Your task to perform on an android device: see tabs open on other devices in the chrome app Image 0: 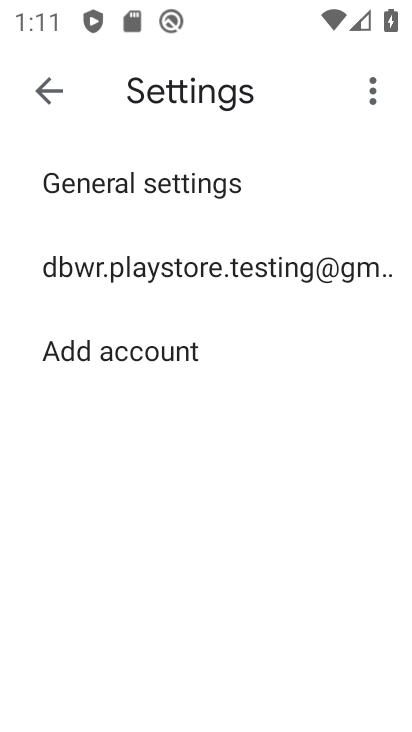
Step 0: press back button
Your task to perform on an android device: see tabs open on other devices in the chrome app Image 1: 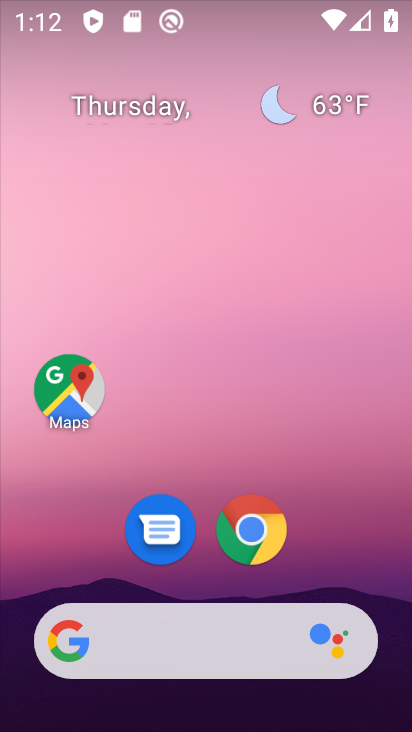
Step 1: click (252, 528)
Your task to perform on an android device: see tabs open on other devices in the chrome app Image 2: 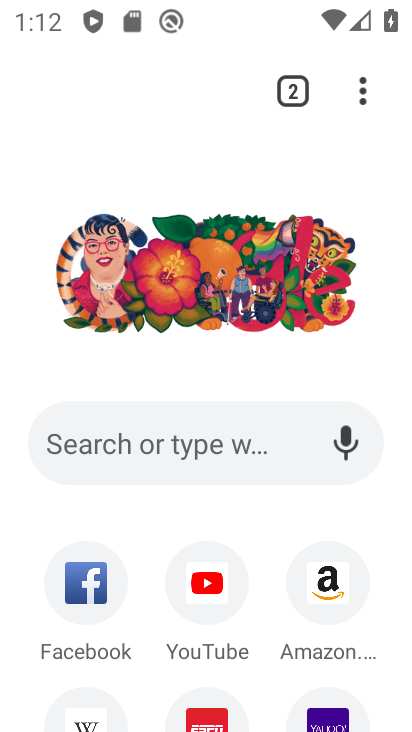
Step 2: click (364, 91)
Your task to perform on an android device: see tabs open on other devices in the chrome app Image 3: 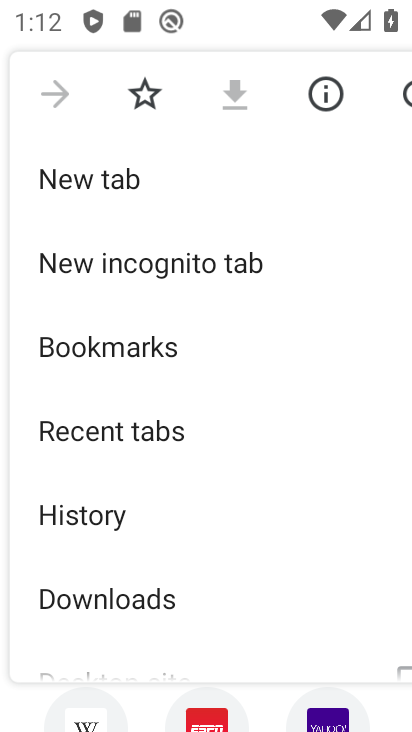
Step 3: click (136, 430)
Your task to perform on an android device: see tabs open on other devices in the chrome app Image 4: 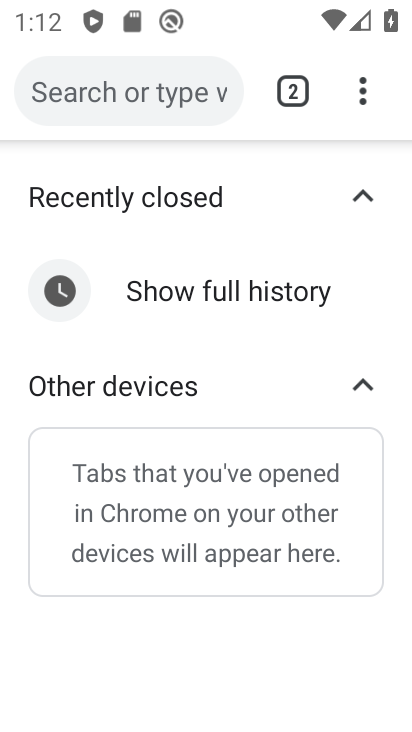
Step 4: task complete